Your task to perform on an android device: What's on my calendar tomorrow? Image 0: 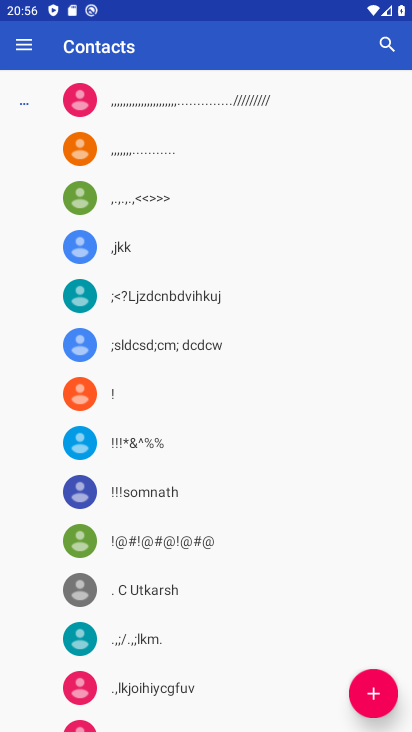
Step 0: press home button
Your task to perform on an android device: What's on my calendar tomorrow? Image 1: 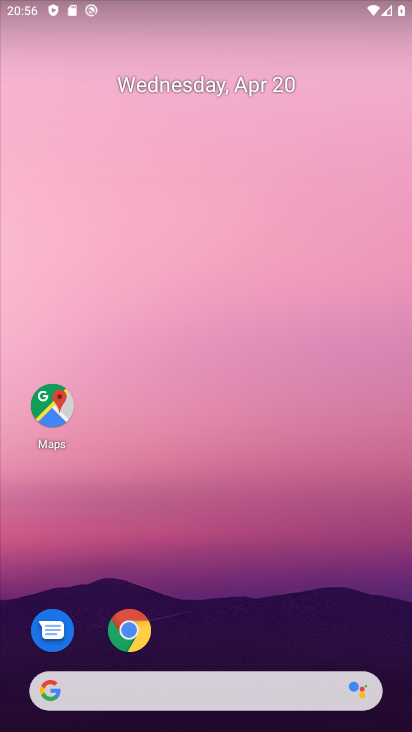
Step 1: drag from (211, 416) to (262, 63)
Your task to perform on an android device: What's on my calendar tomorrow? Image 2: 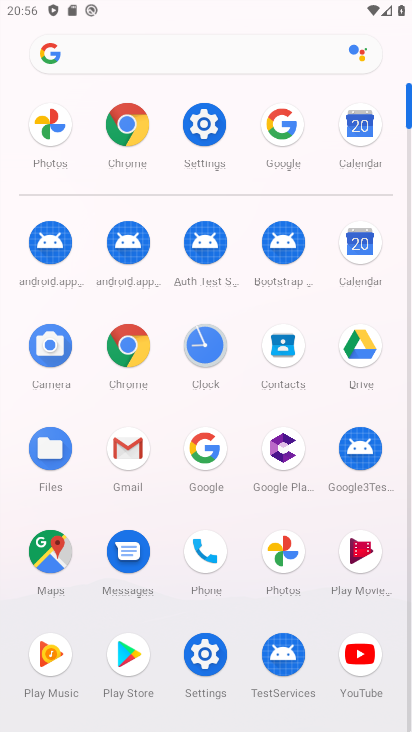
Step 2: click (348, 246)
Your task to perform on an android device: What's on my calendar tomorrow? Image 3: 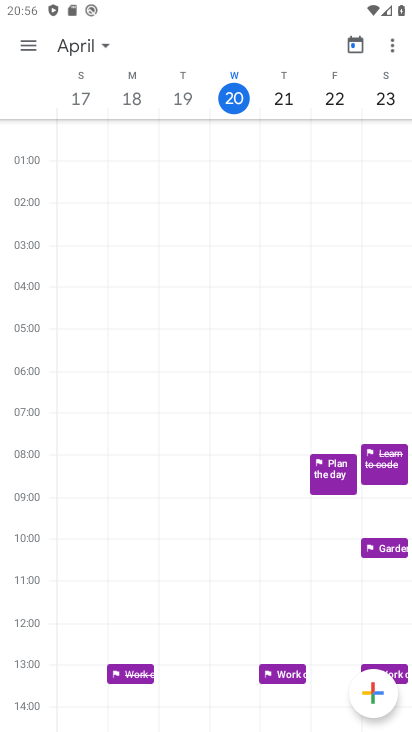
Step 3: click (348, 245)
Your task to perform on an android device: What's on my calendar tomorrow? Image 4: 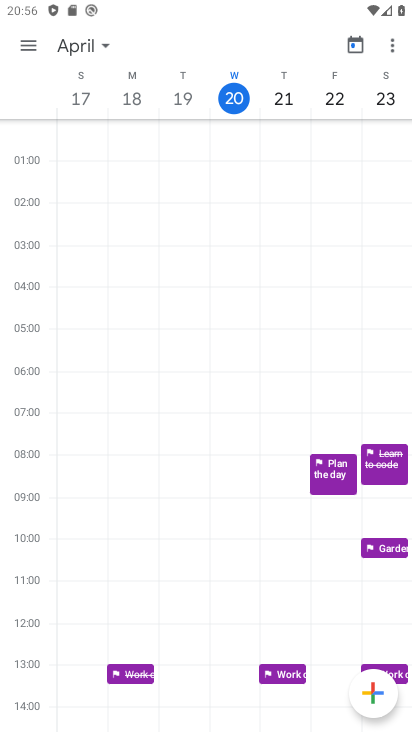
Step 4: click (337, 98)
Your task to perform on an android device: What's on my calendar tomorrow? Image 5: 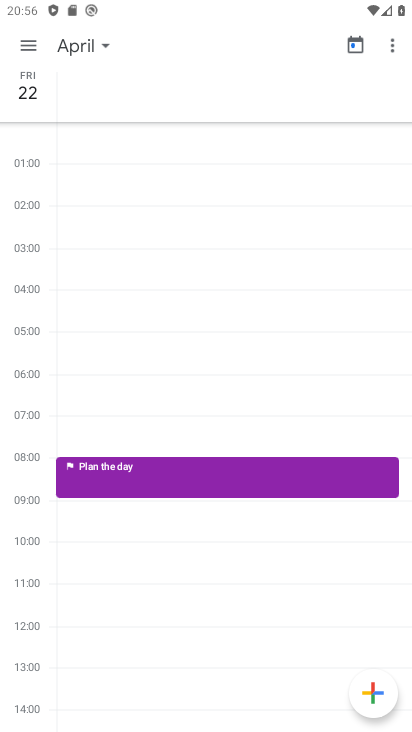
Step 5: task complete